Your task to perform on an android device: create a new album in the google photos Image 0: 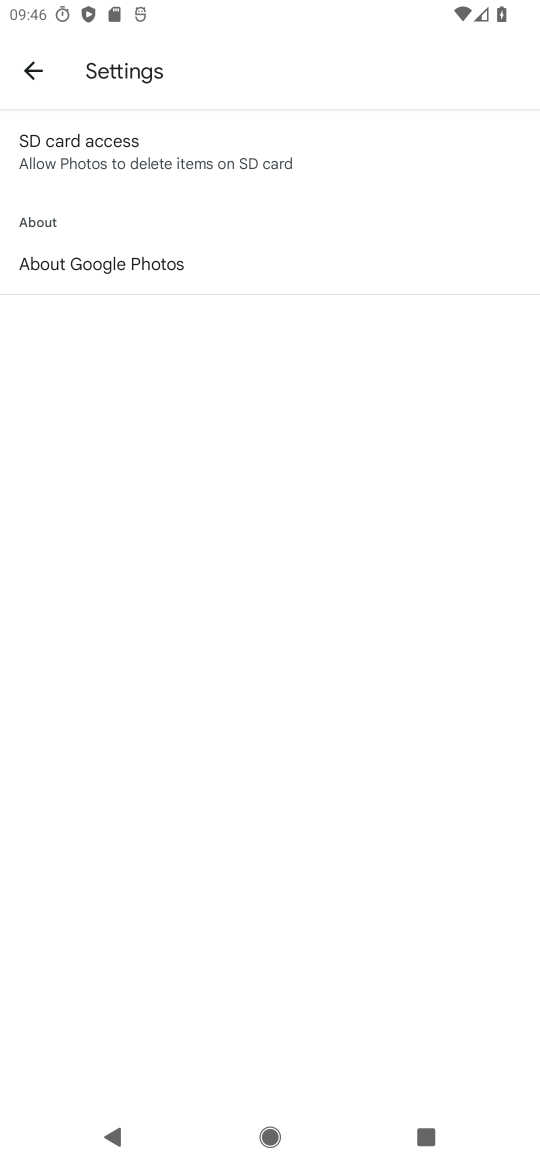
Step 0: press home button
Your task to perform on an android device: create a new album in the google photos Image 1: 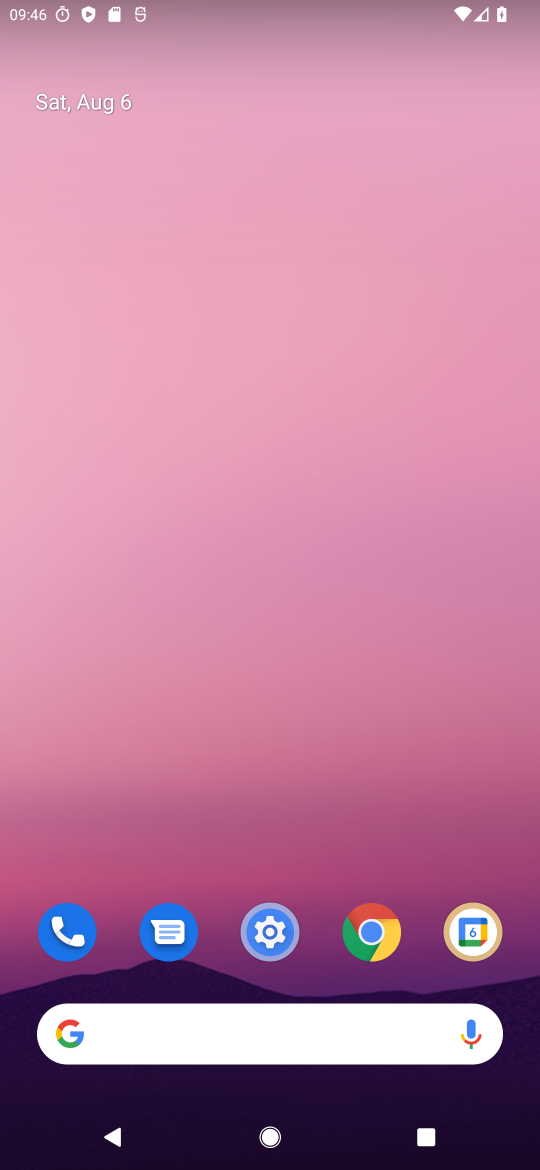
Step 1: drag from (246, 1024) to (449, 131)
Your task to perform on an android device: create a new album in the google photos Image 2: 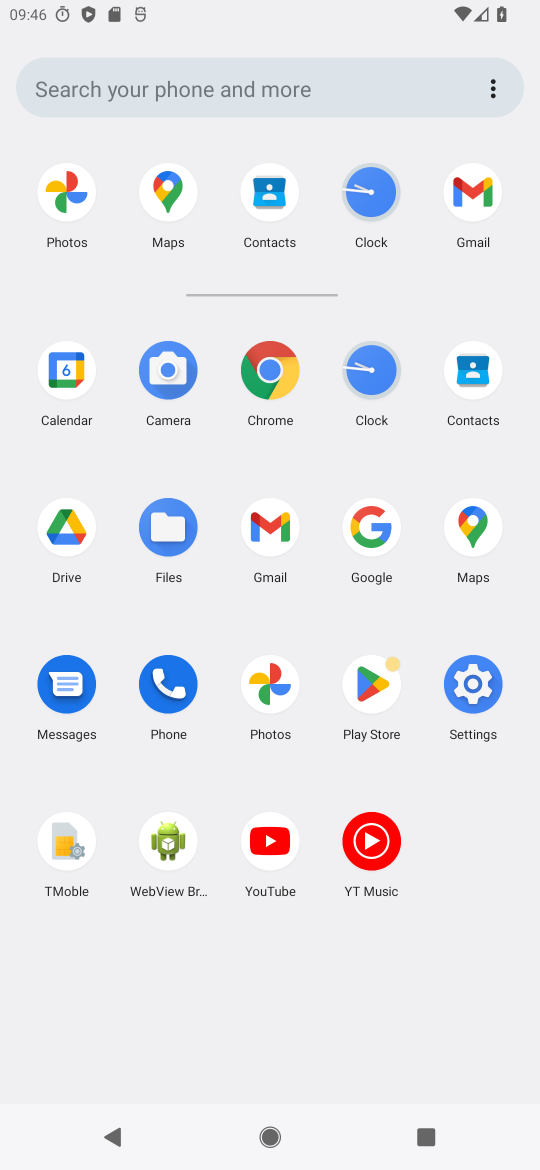
Step 2: click (270, 685)
Your task to perform on an android device: create a new album in the google photos Image 3: 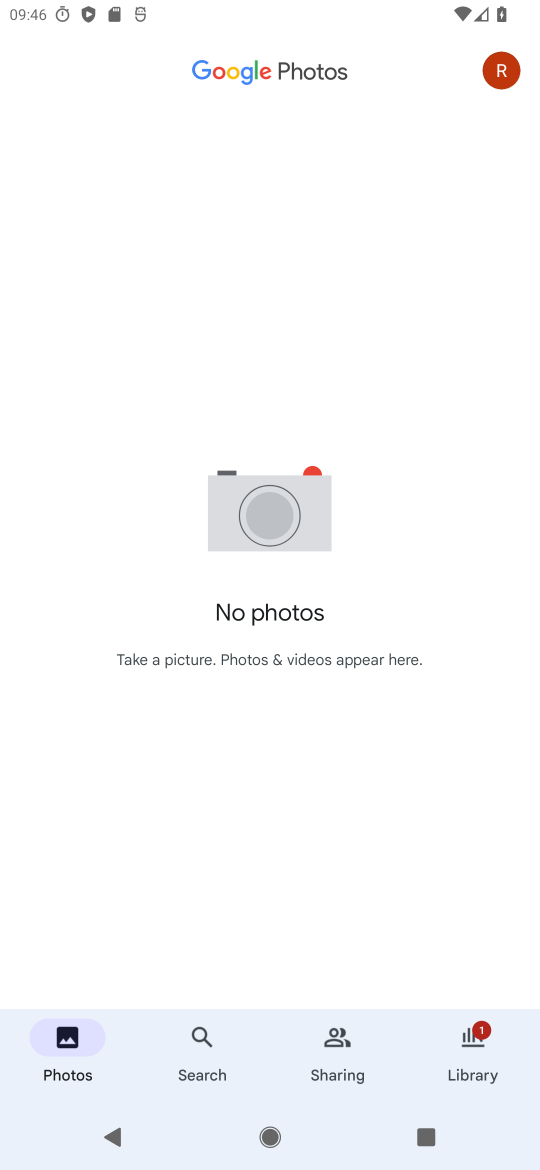
Step 3: click (455, 1066)
Your task to perform on an android device: create a new album in the google photos Image 4: 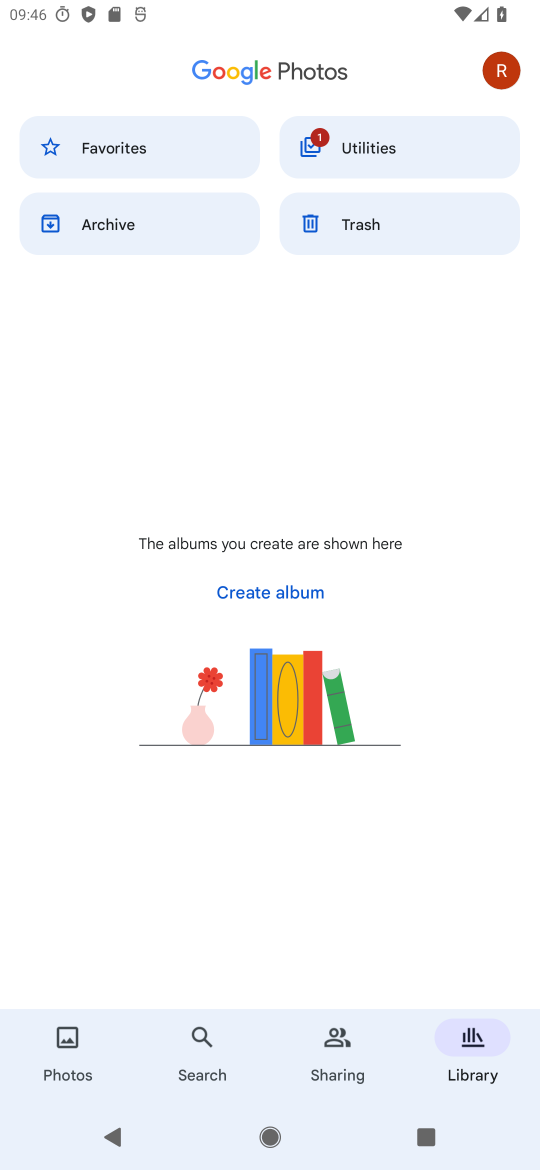
Step 4: click (282, 585)
Your task to perform on an android device: create a new album in the google photos Image 5: 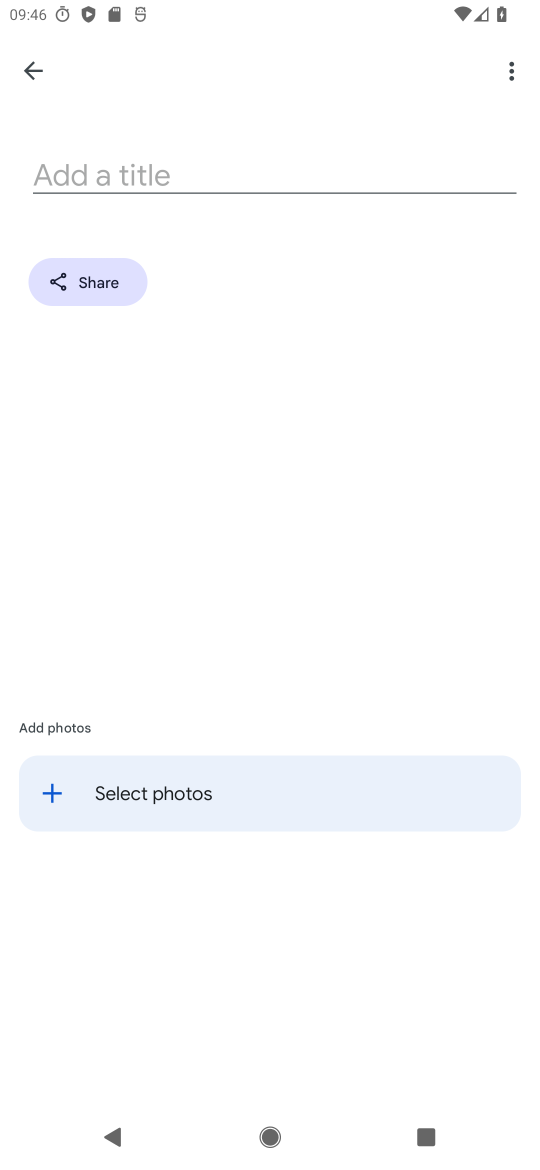
Step 5: task complete